Your task to perform on an android device: toggle data saver in the chrome app Image 0: 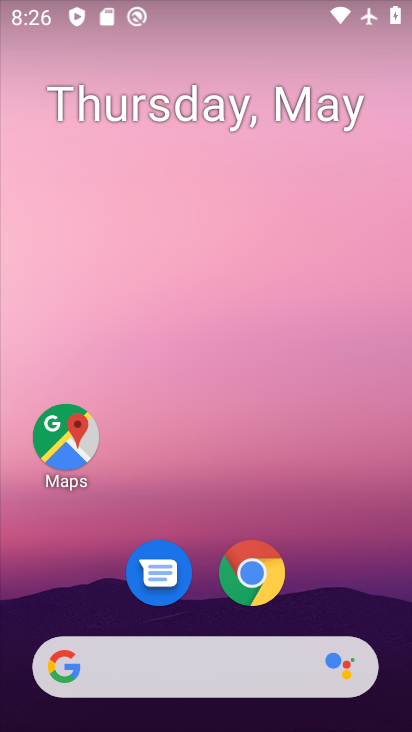
Step 0: click (252, 563)
Your task to perform on an android device: toggle data saver in the chrome app Image 1: 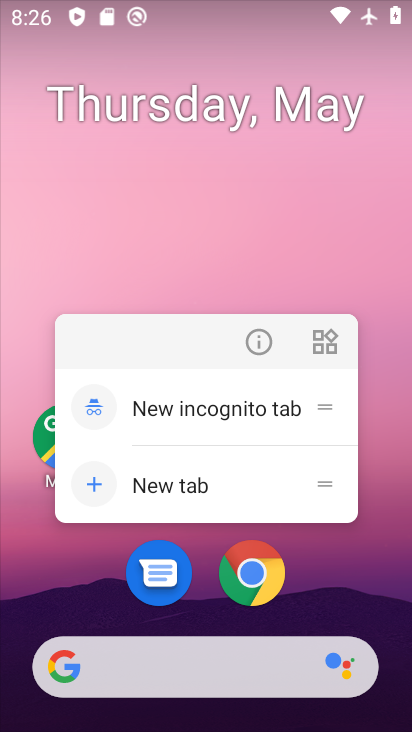
Step 1: click (238, 580)
Your task to perform on an android device: toggle data saver in the chrome app Image 2: 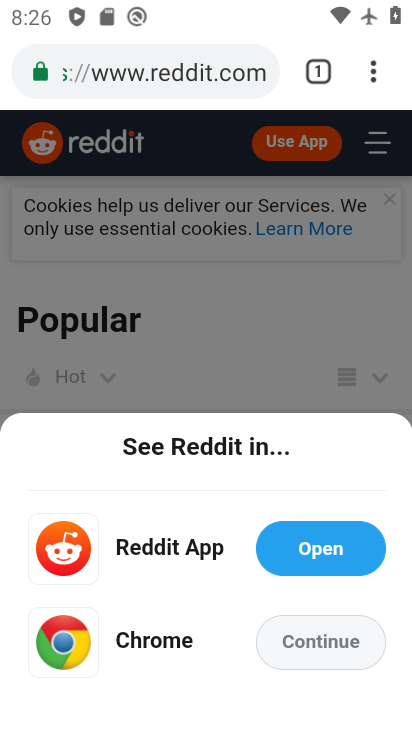
Step 2: drag from (375, 71) to (193, 572)
Your task to perform on an android device: toggle data saver in the chrome app Image 3: 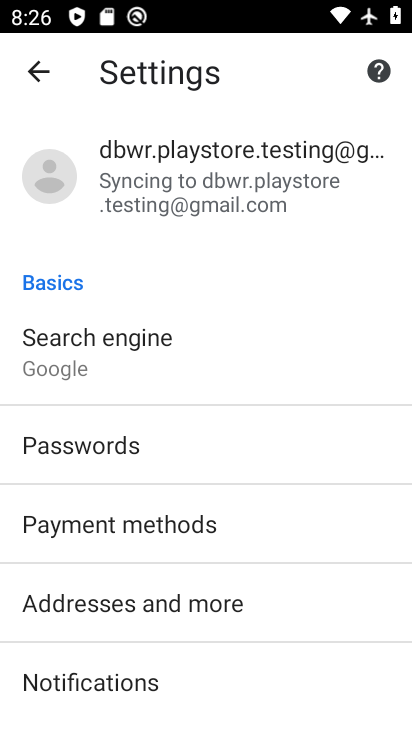
Step 3: drag from (236, 673) to (250, 232)
Your task to perform on an android device: toggle data saver in the chrome app Image 4: 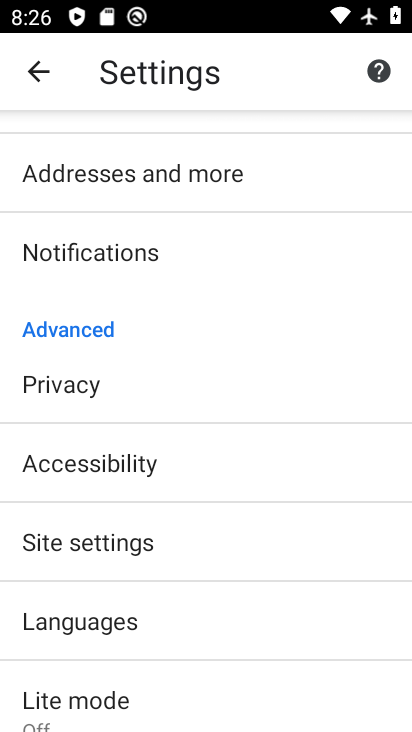
Step 4: drag from (146, 698) to (189, 450)
Your task to perform on an android device: toggle data saver in the chrome app Image 5: 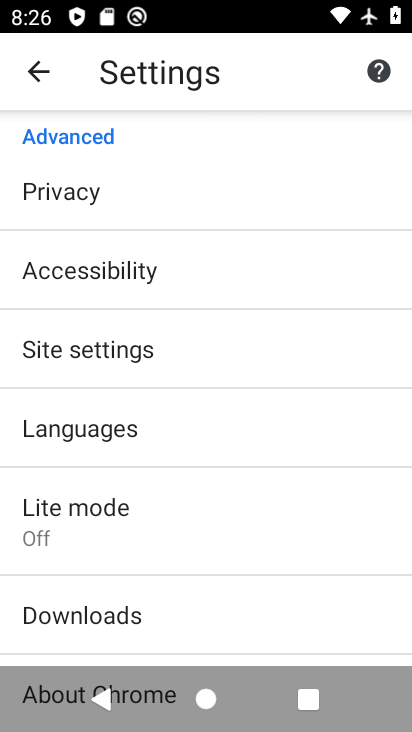
Step 5: click (161, 519)
Your task to perform on an android device: toggle data saver in the chrome app Image 6: 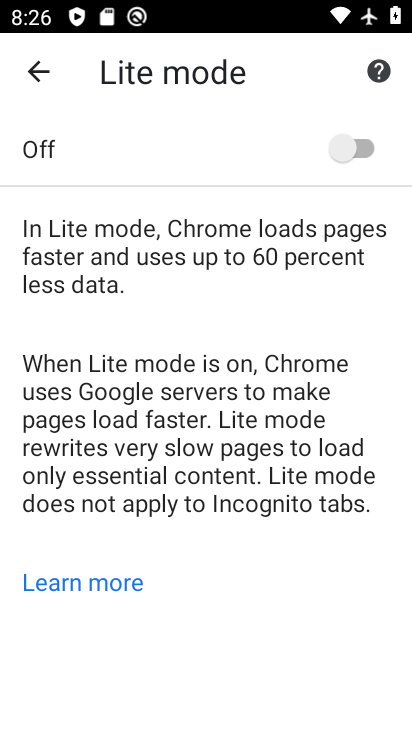
Step 6: click (342, 150)
Your task to perform on an android device: toggle data saver in the chrome app Image 7: 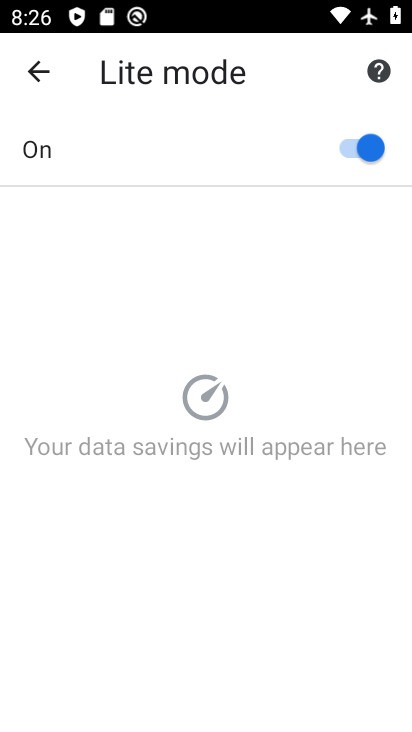
Step 7: task complete